Your task to perform on an android device: Set the phone to "Do not disturb". Image 0: 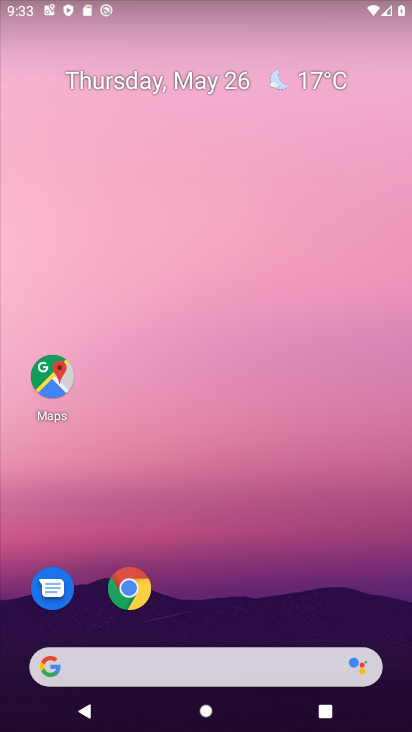
Step 0: drag from (388, 615) to (336, 56)
Your task to perform on an android device: Set the phone to "Do not disturb". Image 1: 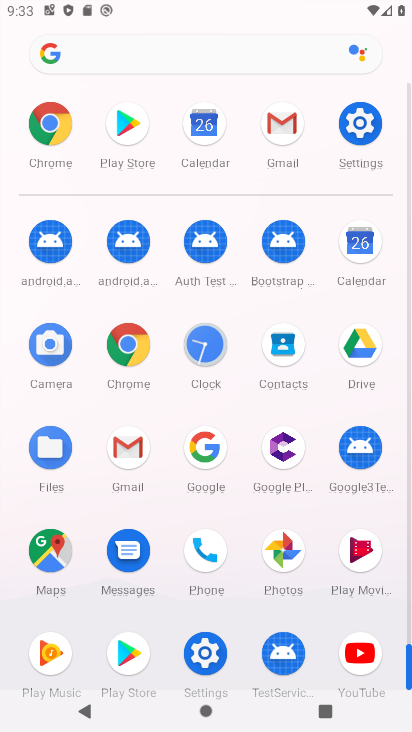
Step 1: click (205, 652)
Your task to perform on an android device: Set the phone to "Do not disturb". Image 2: 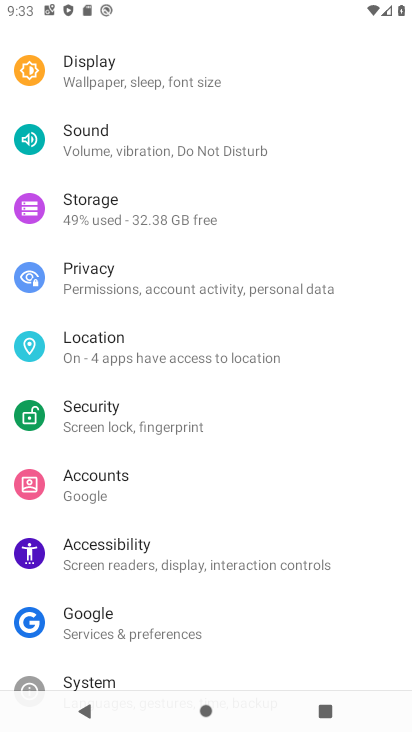
Step 2: click (109, 141)
Your task to perform on an android device: Set the phone to "Do not disturb". Image 3: 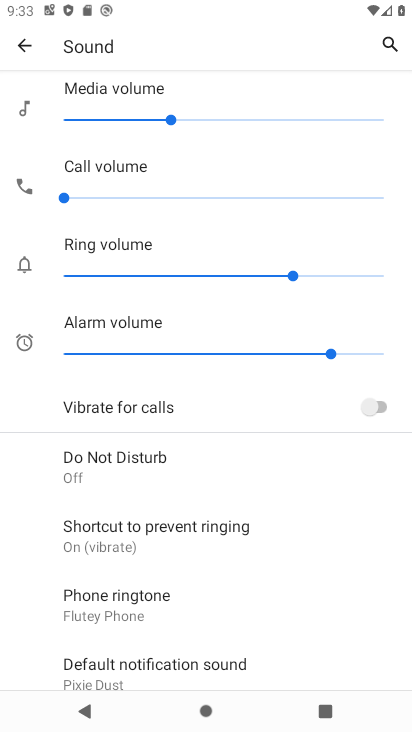
Step 3: click (89, 447)
Your task to perform on an android device: Set the phone to "Do not disturb". Image 4: 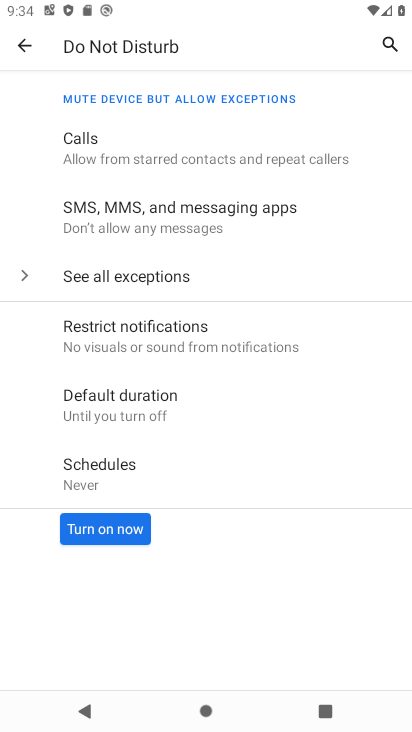
Step 4: click (90, 522)
Your task to perform on an android device: Set the phone to "Do not disturb". Image 5: 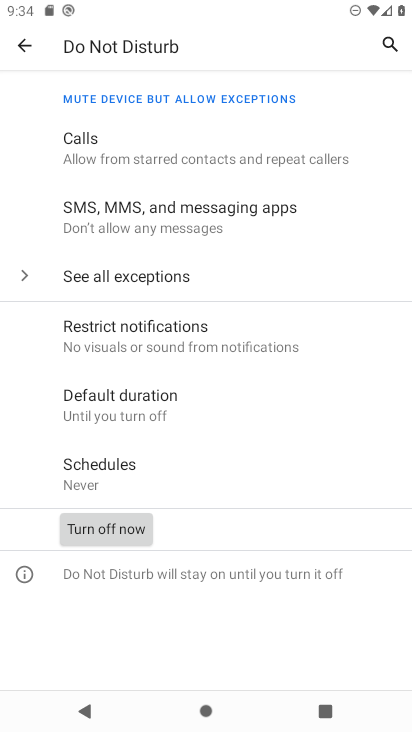
Step 5: task complete